Your task to perform on an android device: Search for Italian restaurants on Maps Image 0: 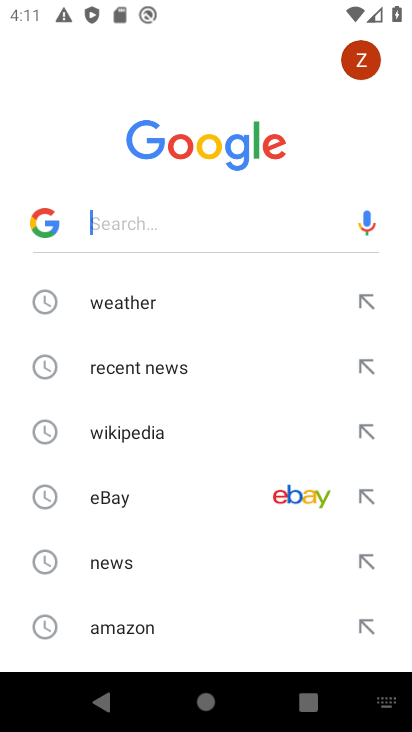
Step 0: press home button
Your task to perform on an android device: Search for Italian restaurants on Maps Image 1: 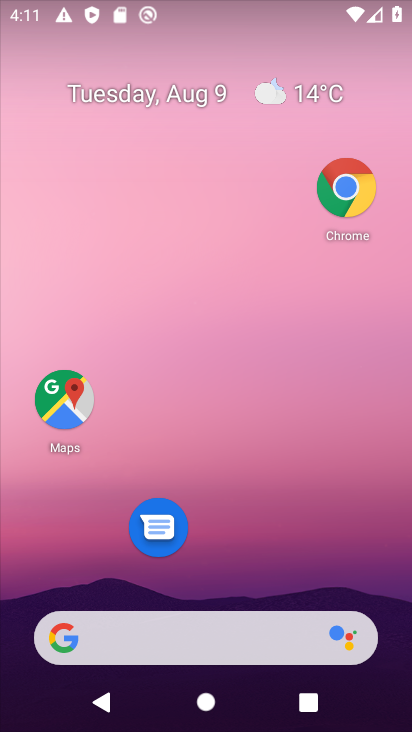
Step 1: click (61, 395)
Your task to perform on an android device: Search for Italian restaurants on Maps Image 2: 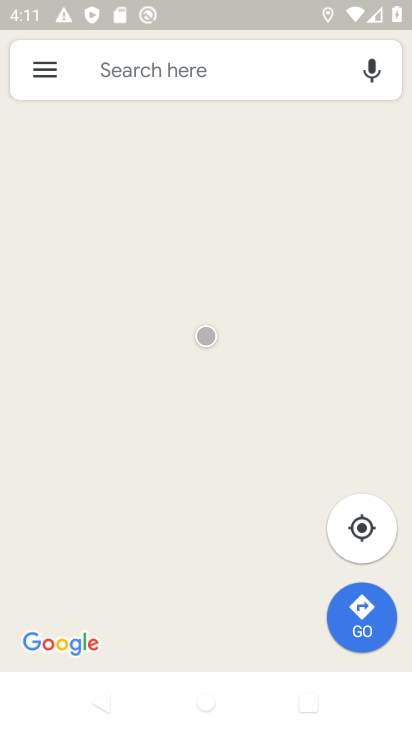
Step 2: click (150, 57)
Your task to perform on an android device: Search for Italian restaurants on Maps Image 3: 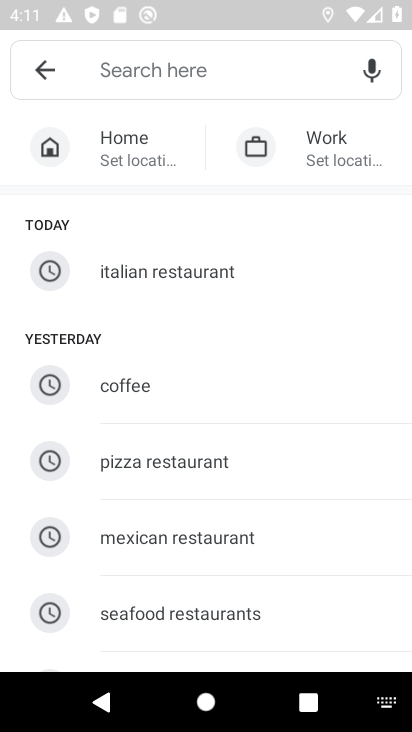
Step 3: click (247, 288)
Your task to perform on an android device: Search for Italian restaurants on Maps Image 4: 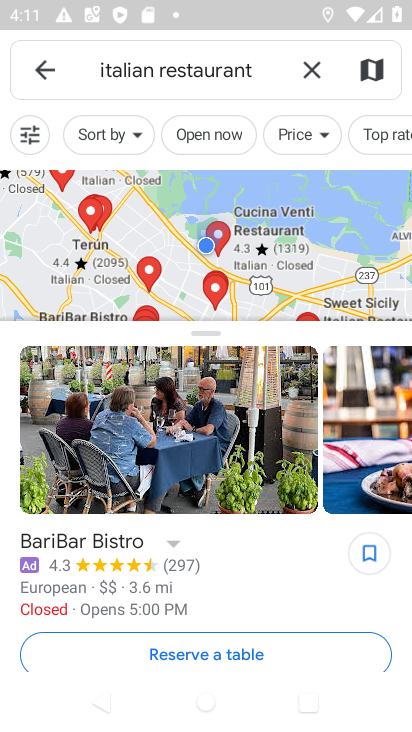
Step 4: task complete